Your task to perform on an android device: check android version Image 0: 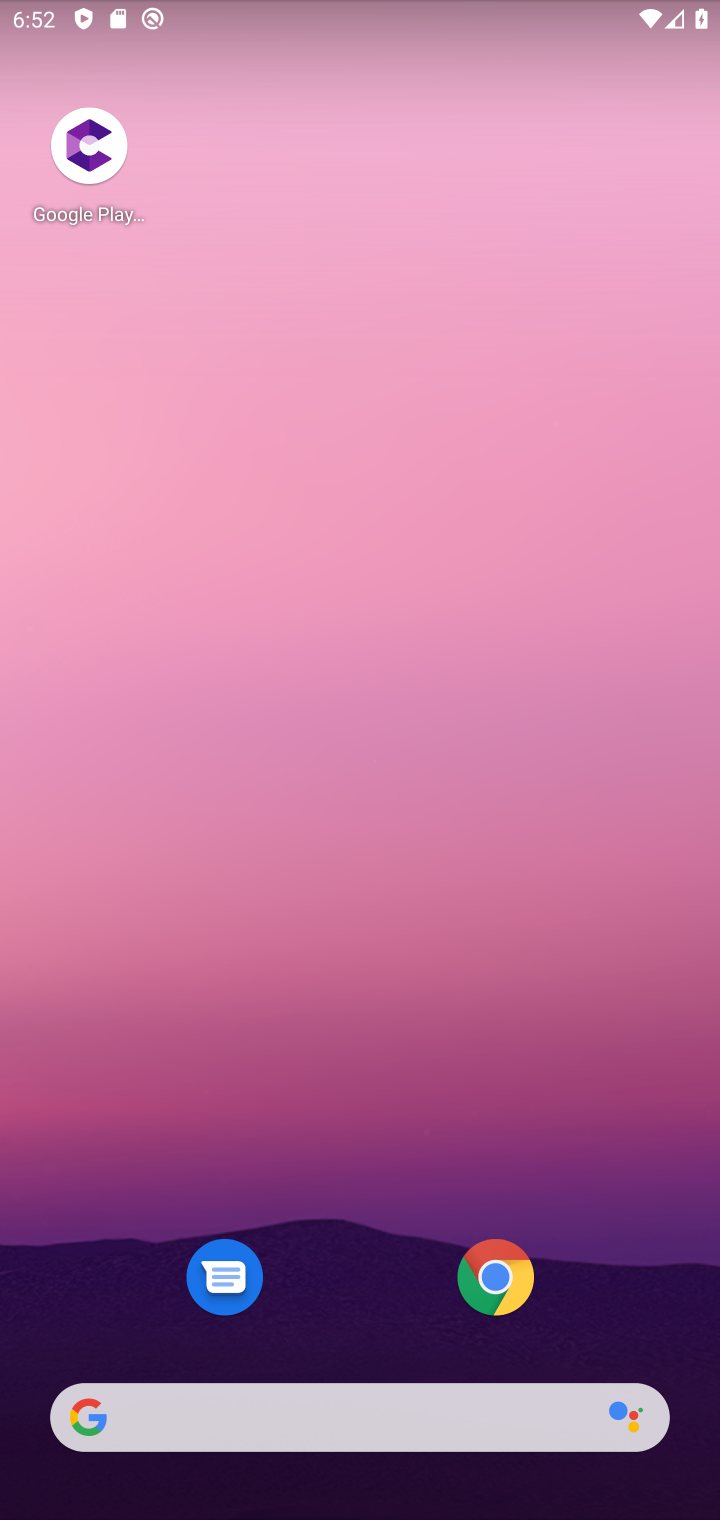
Step 0: drag from (396, 1156) to (385, 72)
Your task to perform on an android device: check android version Image 1: 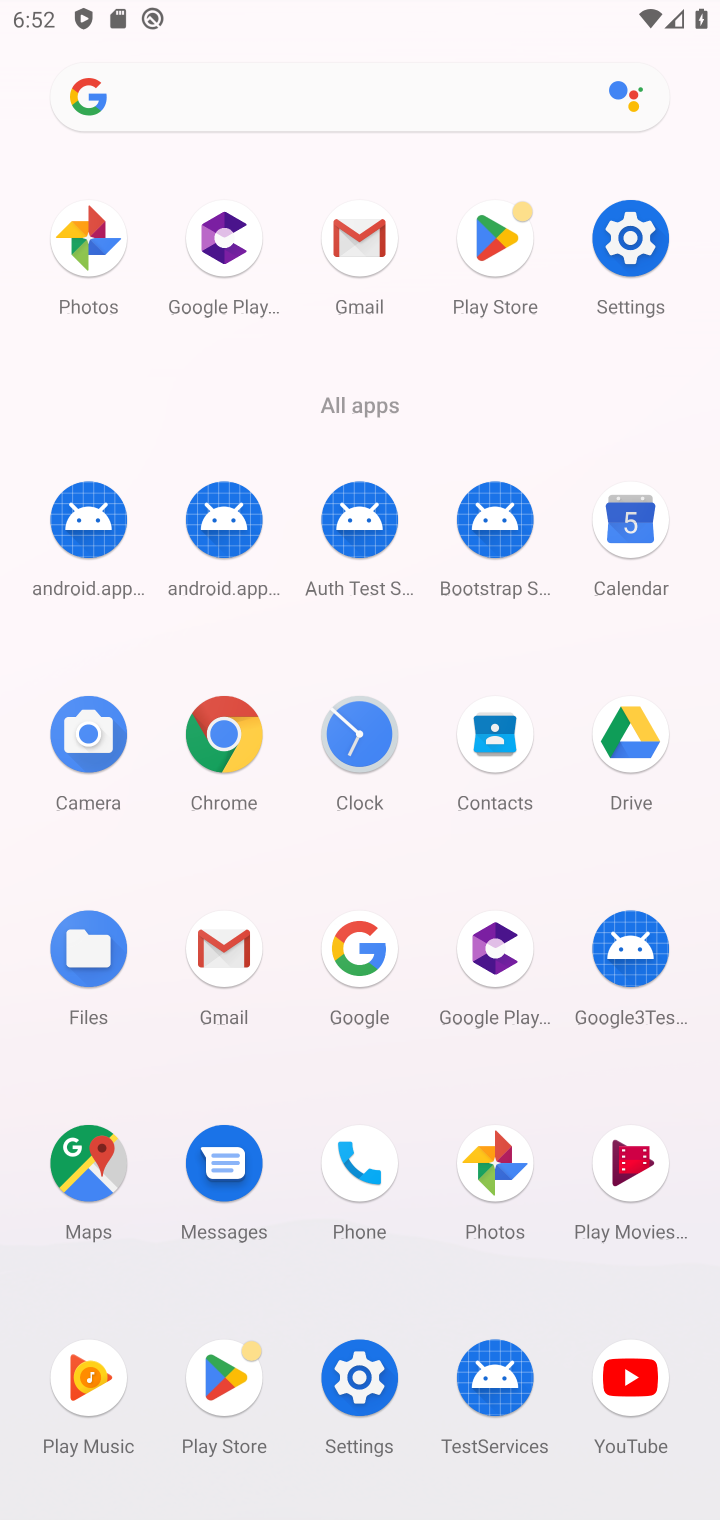
Step 1: click (618, 237)
Your task to perform on an android device: check android version Image 2: 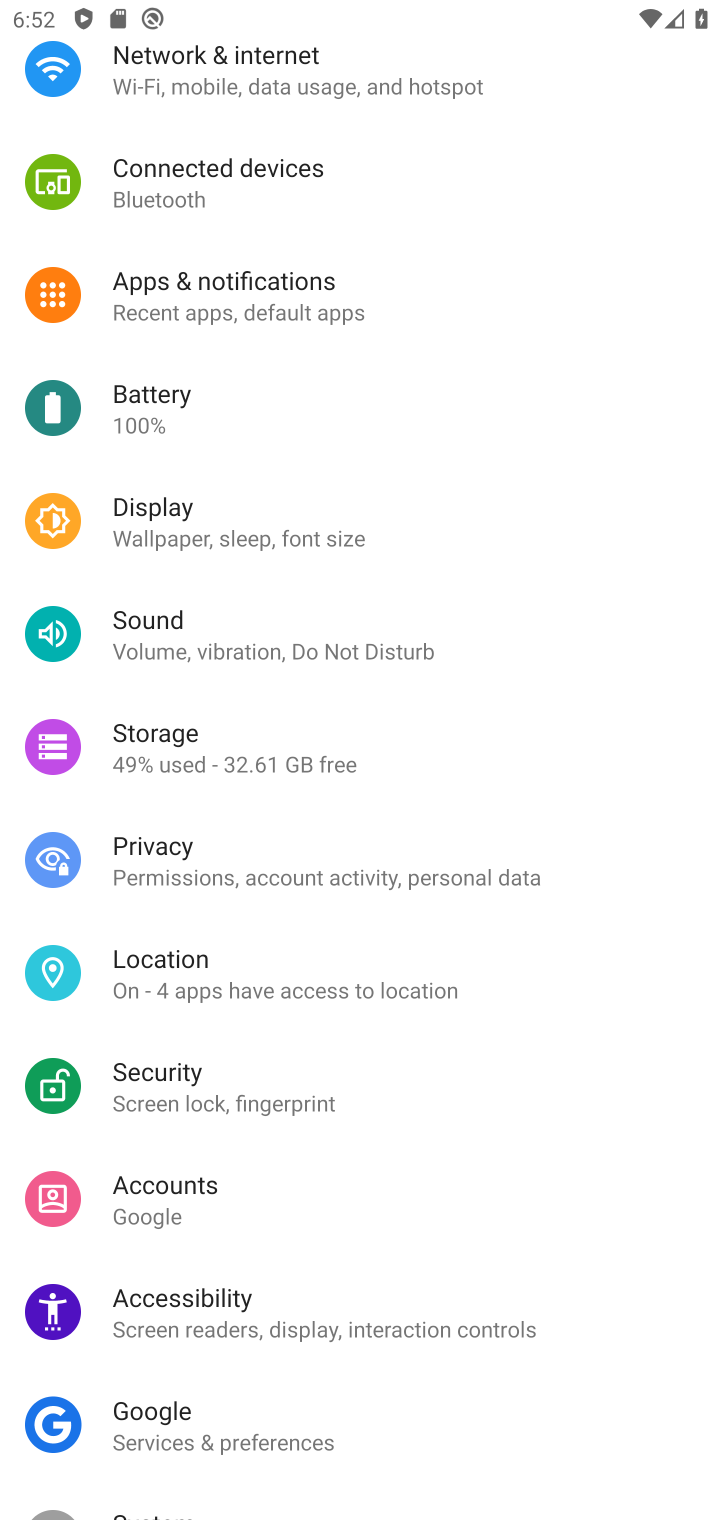
Step 2: drag from (321, 1388) to (328, 1082)
Your task to perform on an android device: check android version Image 3: 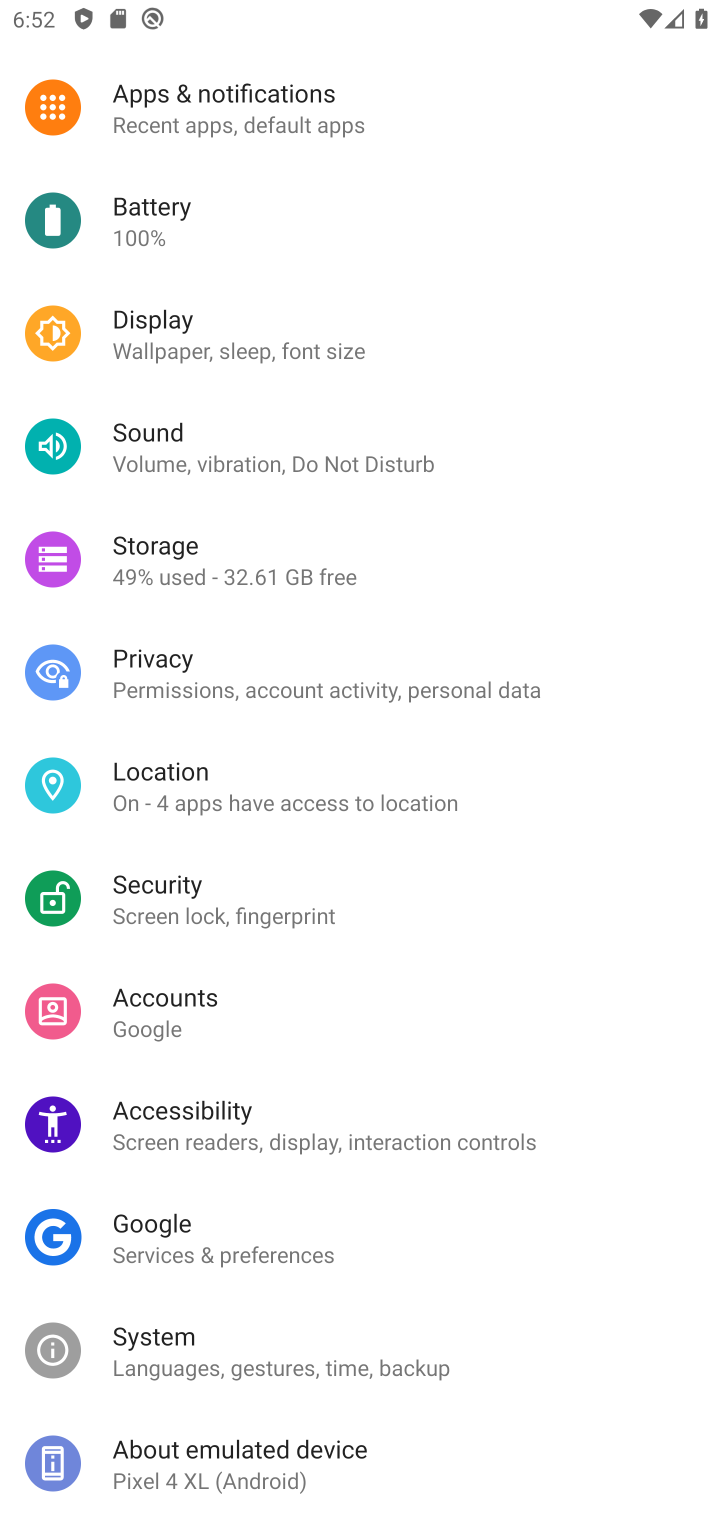
Step 3: click (256, 1458)
Your task to perform on an android device: check android version Image 4: 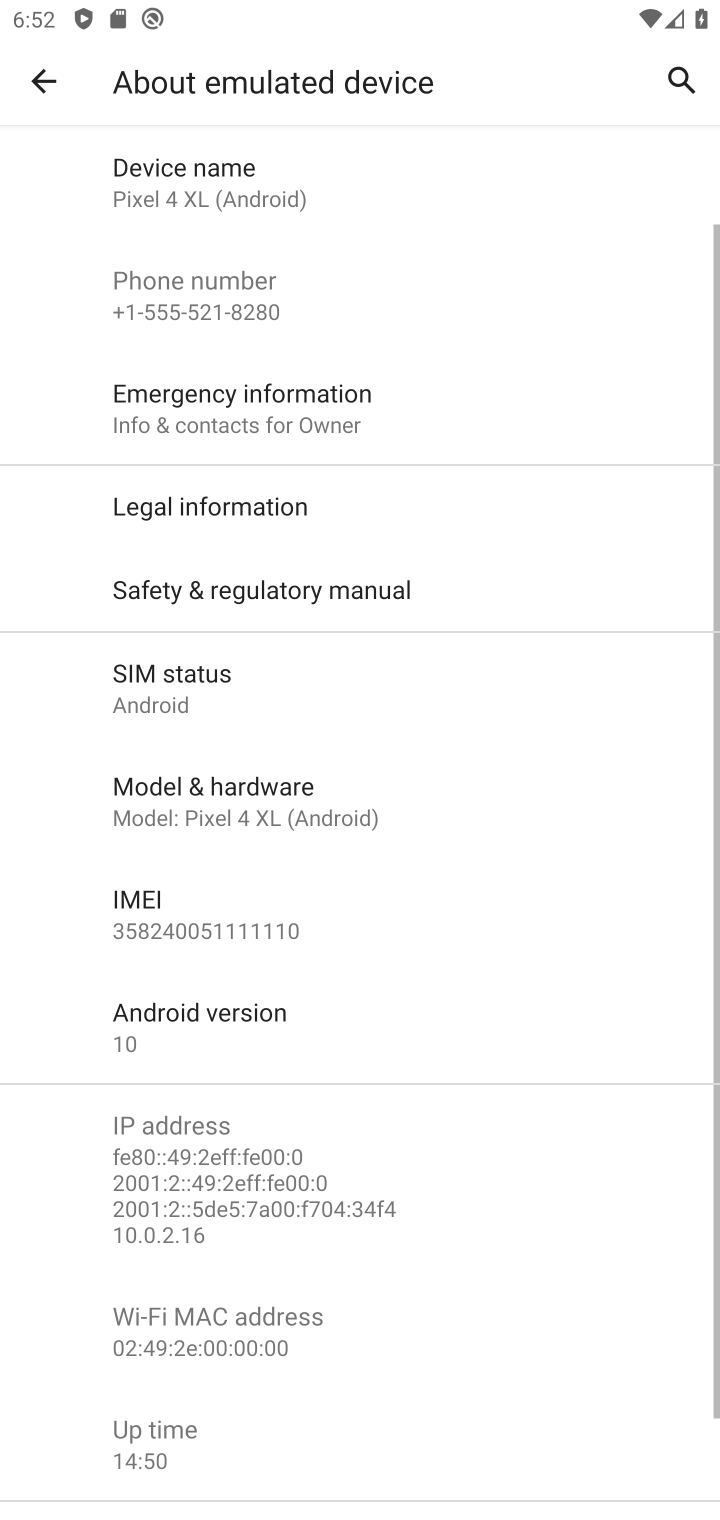
Step 4: click (230, 1036)
Your task to perform on an android device: check android version Image 5: 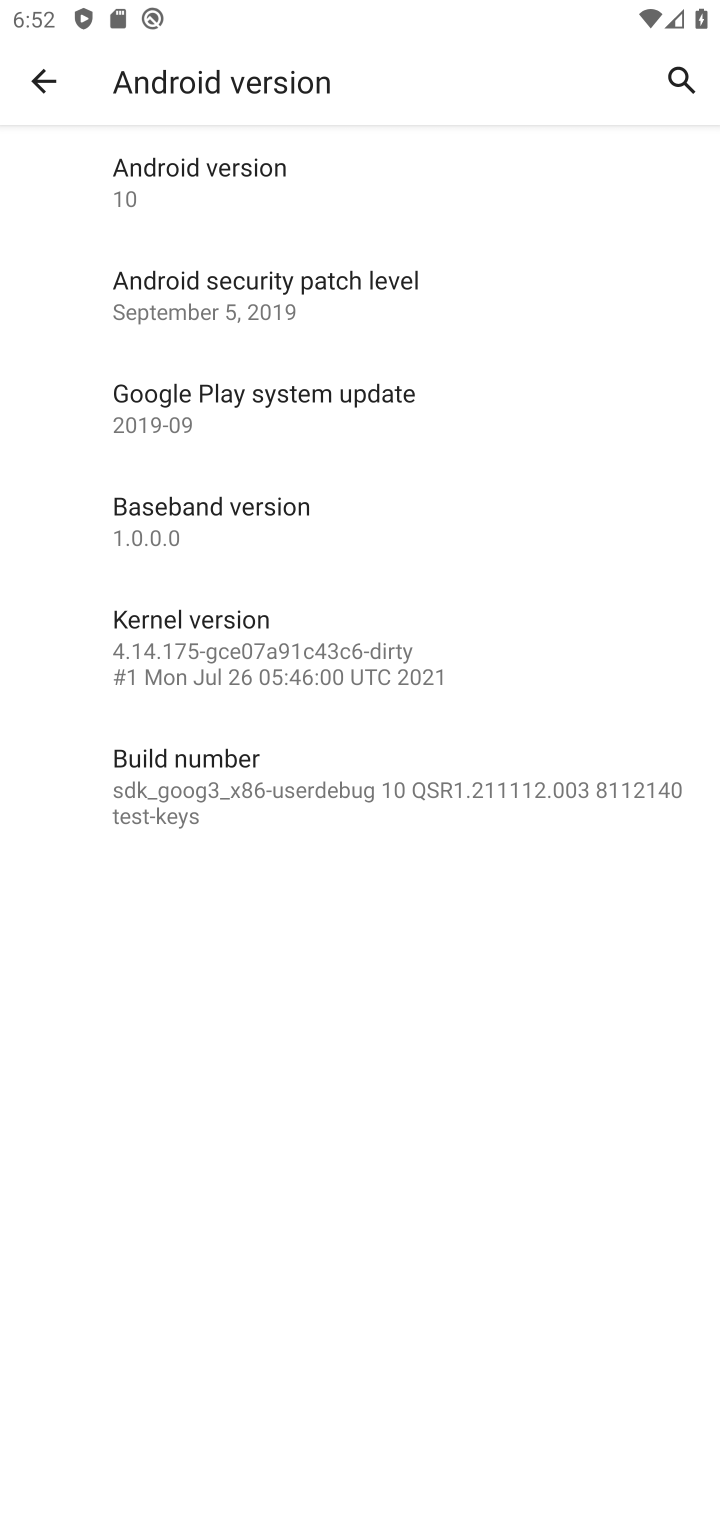
Step 5: task complete